Your task to perform on an android device: Search for a new grill on Home Depot Image 0: 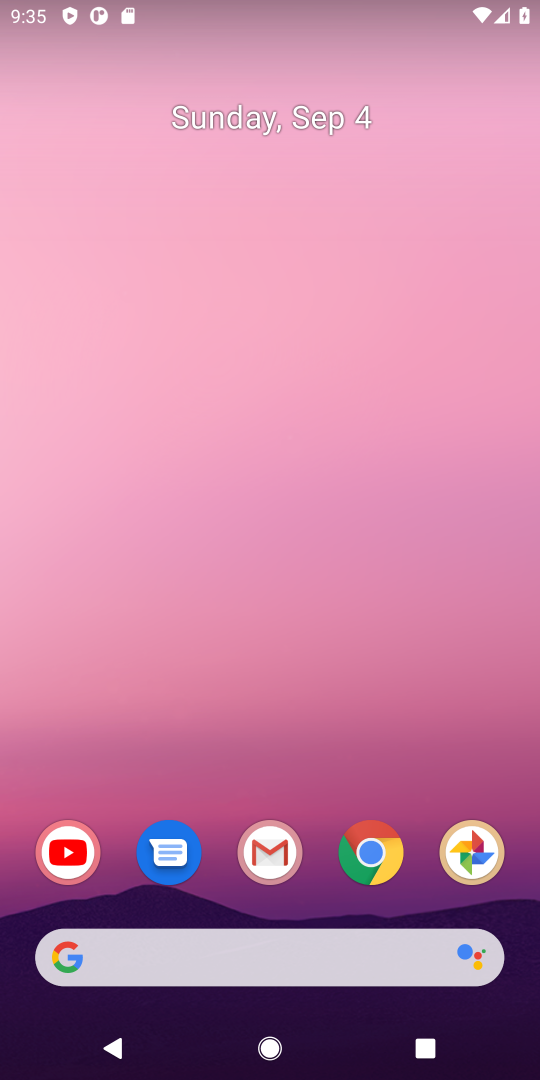
Step 0: drag from (371, 662) to (159, 39)
Your task to perform on an android device: Search for a new grill on Home Depot Image 1: 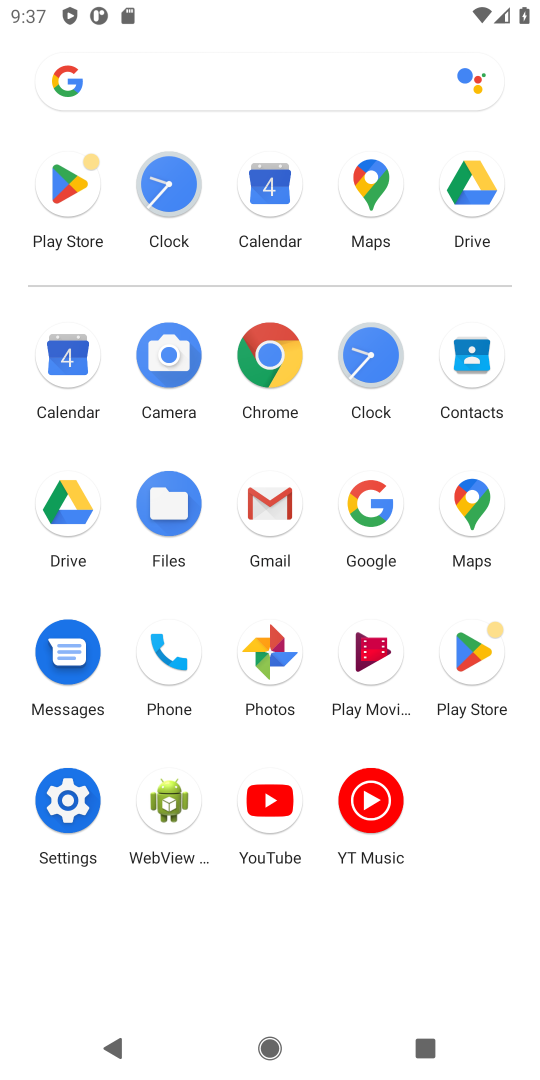
Step 1: click (380, 495)
Your task to perform on an android device: Search for a new grill on Home Depot Image 2: 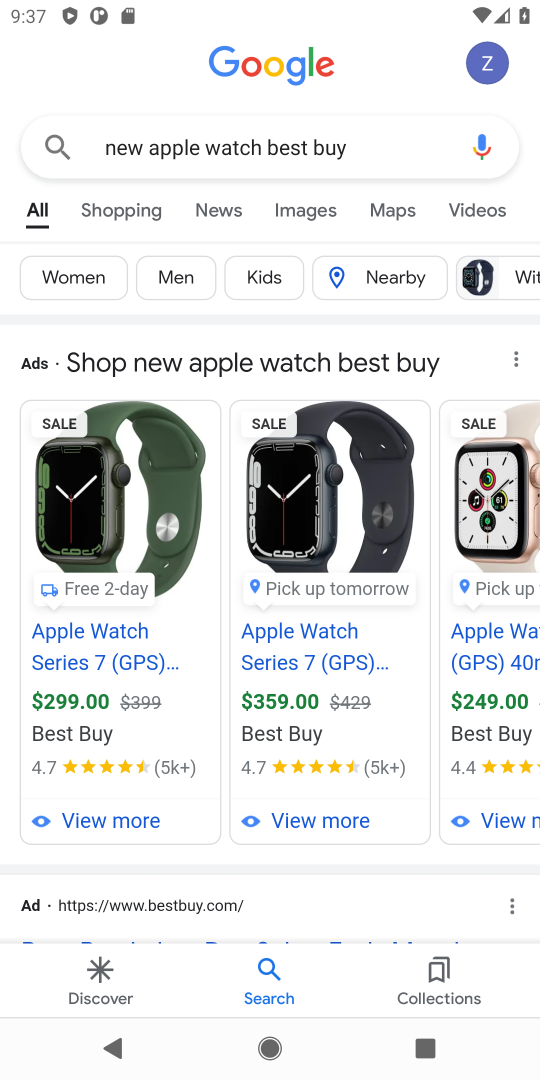
Step 2: press back button
Your task to perform on an android device: Search for a new grill on Home Depot Image 3: 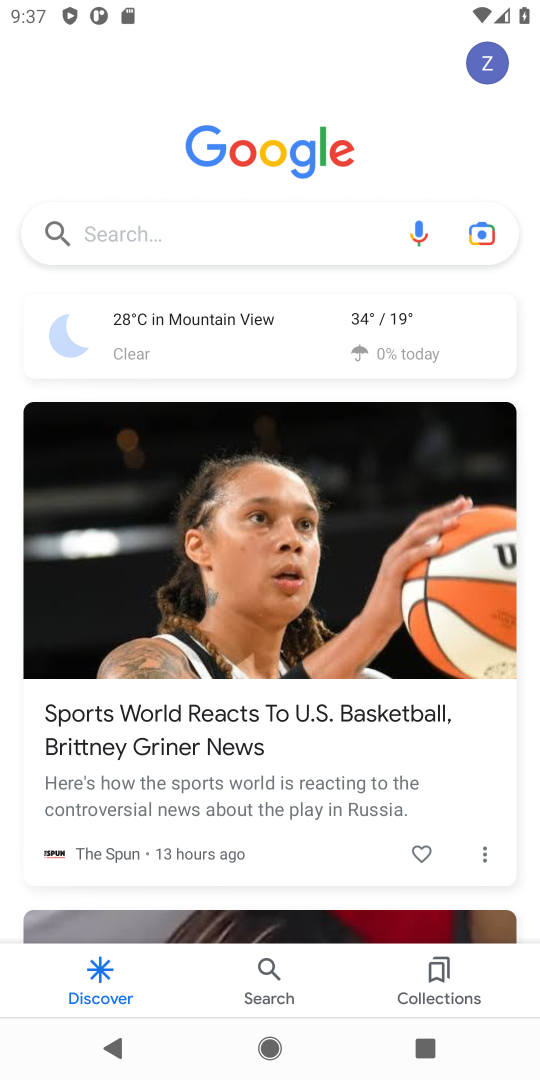
Step 3: click (190, 241)
Your task to perform on an android device: Search for a new grill on Home Depot Image 4: 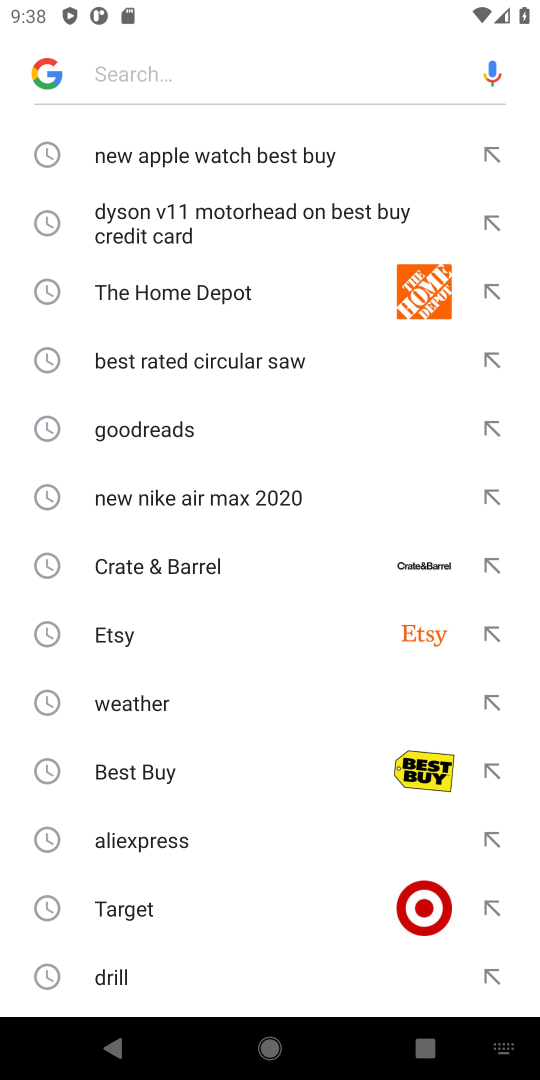
Step 4: click (211, 293)
Your task to perform on an android device: Search for a new grill on Home Depot Image 5: 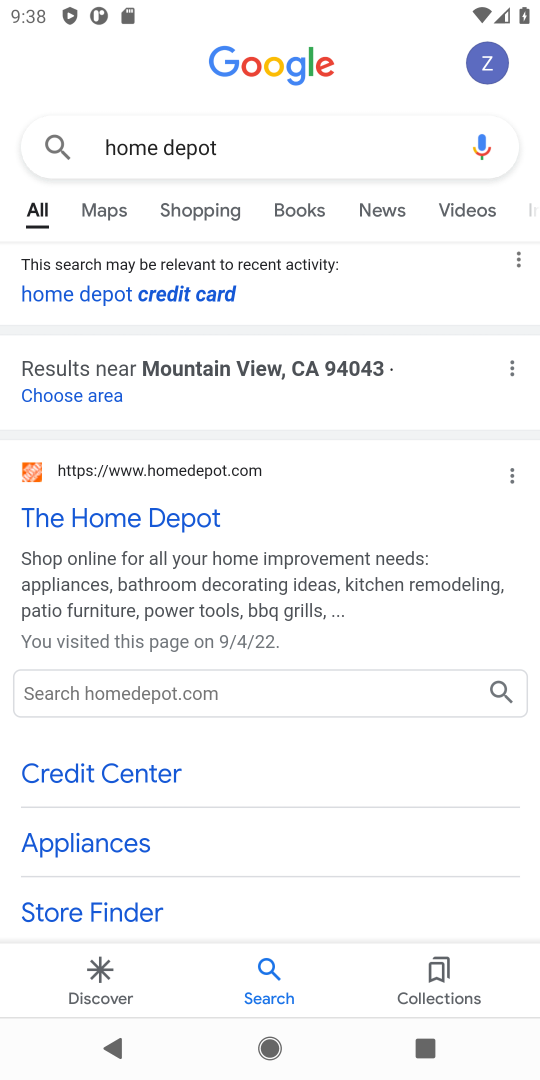
Step 5: drag from (157, 839) to (102, 196)
Your task to perform on an android device: Search for a new grill on Home Depot Image 6: 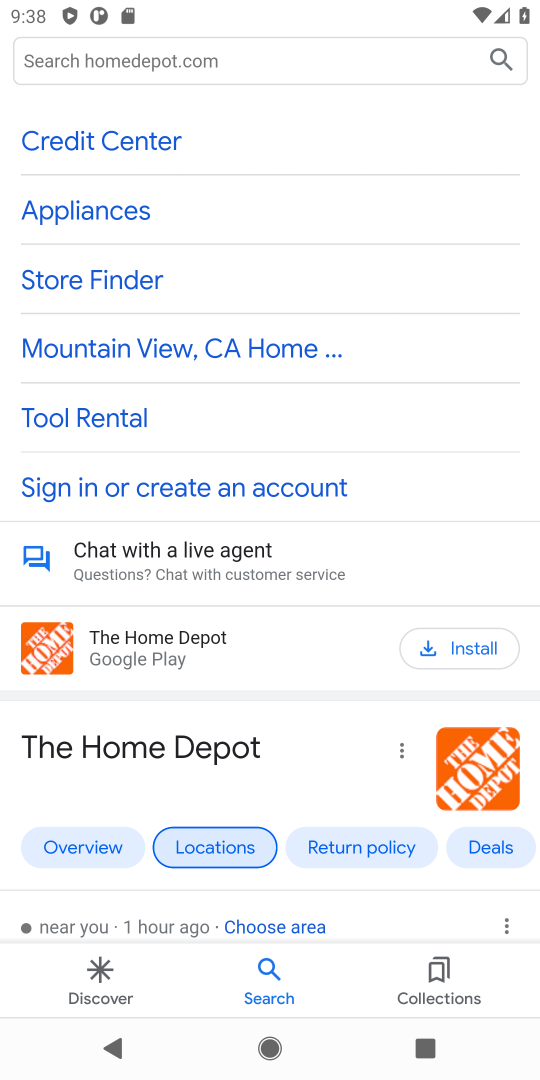
Step 6: click (135, 164)
Your task to perform on an android device: Search for a new grill on Home Depot Image 7: 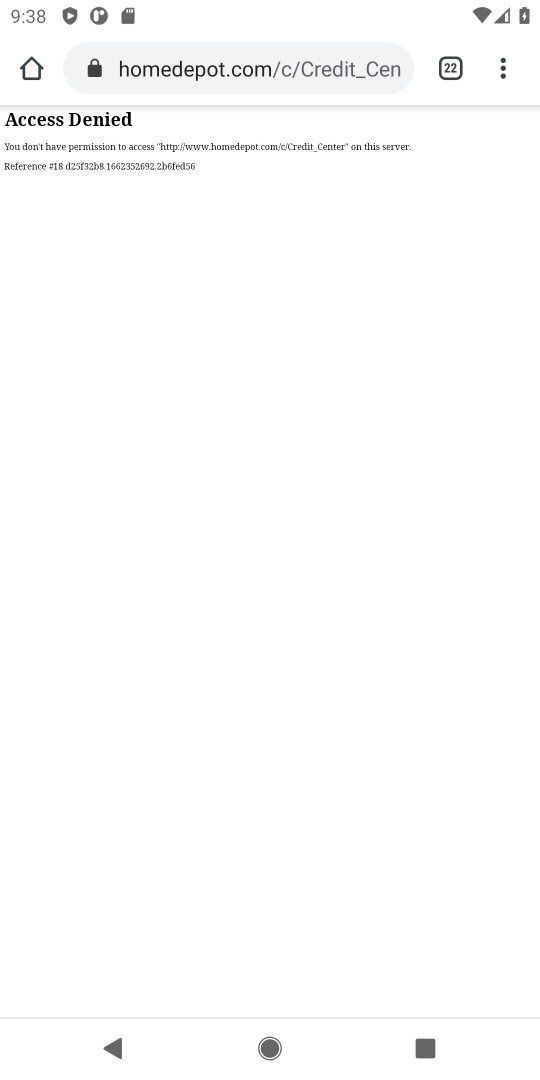
Step 7: task complete